Your task to perform on an android device: turn off javascript in the chrome app Image 0: 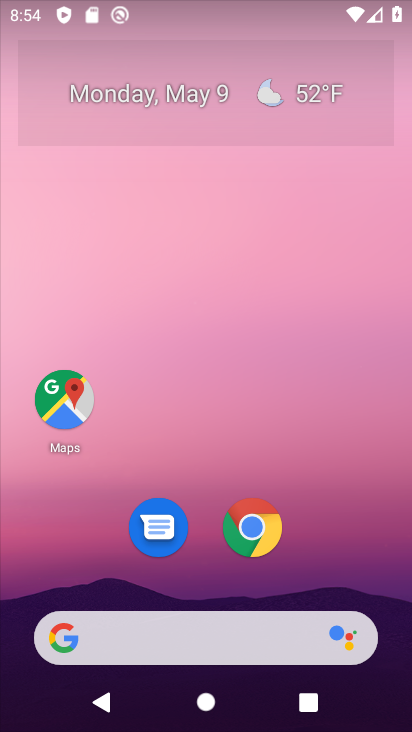
Step 0: drag from (365, 545) to (331, 113)
Your task to perform on an android device: turn off javascript in the chrome app Image 1: 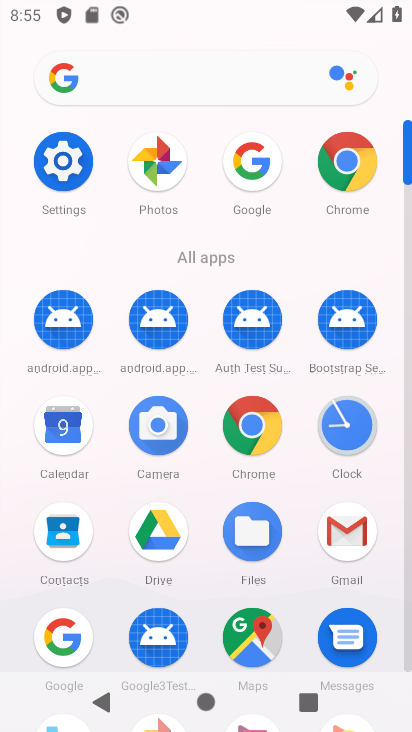
Step 1: click (271, 439)
Your task to perform on an android device: turn off javascript in the chrome app Image 2: 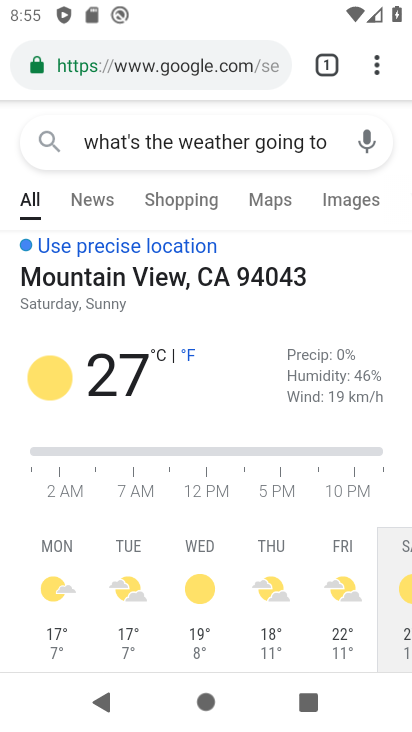
Step 2: drag from (376, 80) to (198, 587)
Your task to perform on an android device: turn off javascript in the chrome app Image 3: 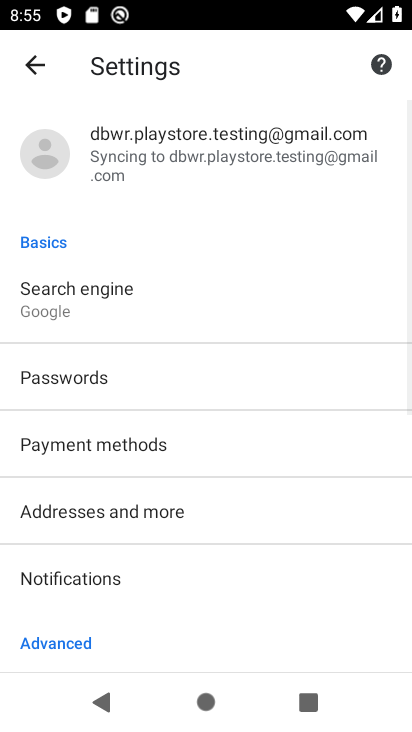
Step 3: drag from (219, 606) to (237, 236)
Your task to perform on an android device: turn off javascript in the chrome app Image 4: 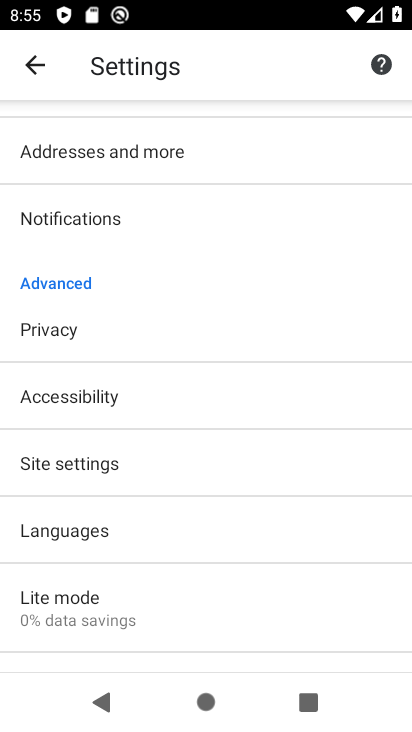
Step 4: click (208, 489)
Your task to perform on an android device: turn off javascript in the chrome app Image 5: 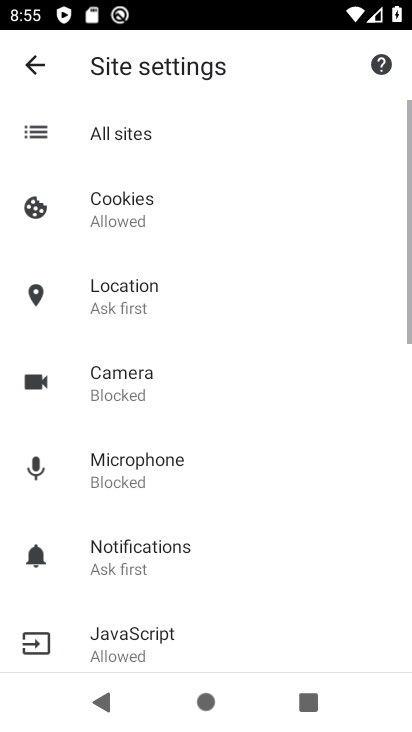
Step 5: drag from (234, 597) to (233, 378)
Your task to perform on an android device: turn off javascript in the chrome app Image 6: 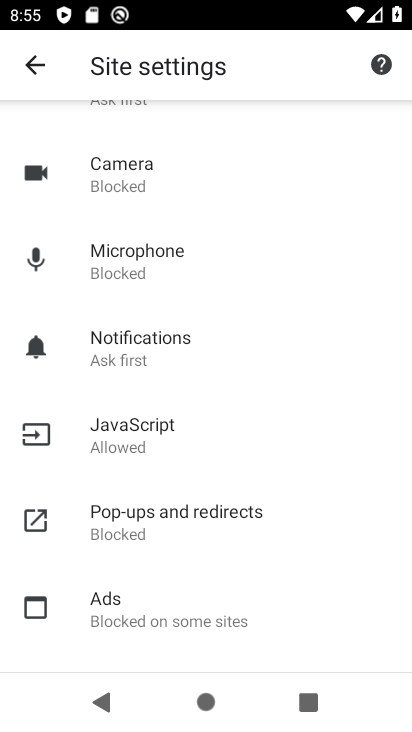
Step 6: click (181, 434)
Your task to perform on an android device: turn off javascript in the chrome app Image 7: 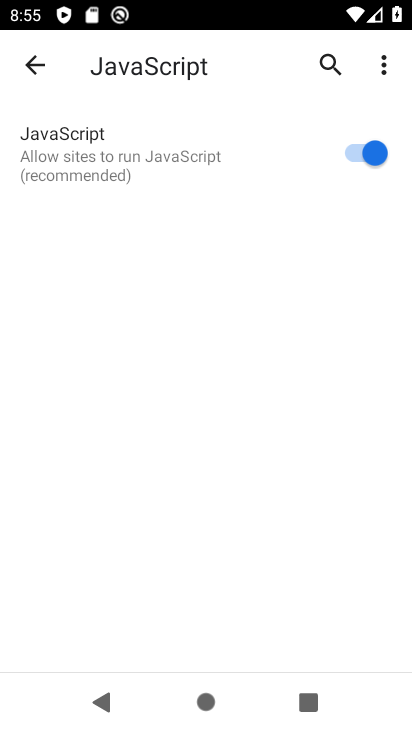
Step 7: click (361, 151)
Your task to perform on an android device: turn off javascript in the chrome app Image 8: 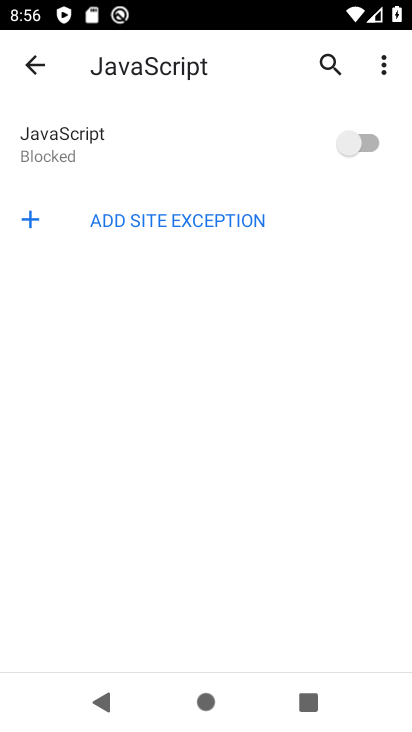
Step 8: task complete